Your task to perform on an android device: Look up the best rated book on Goodreads Image 0: 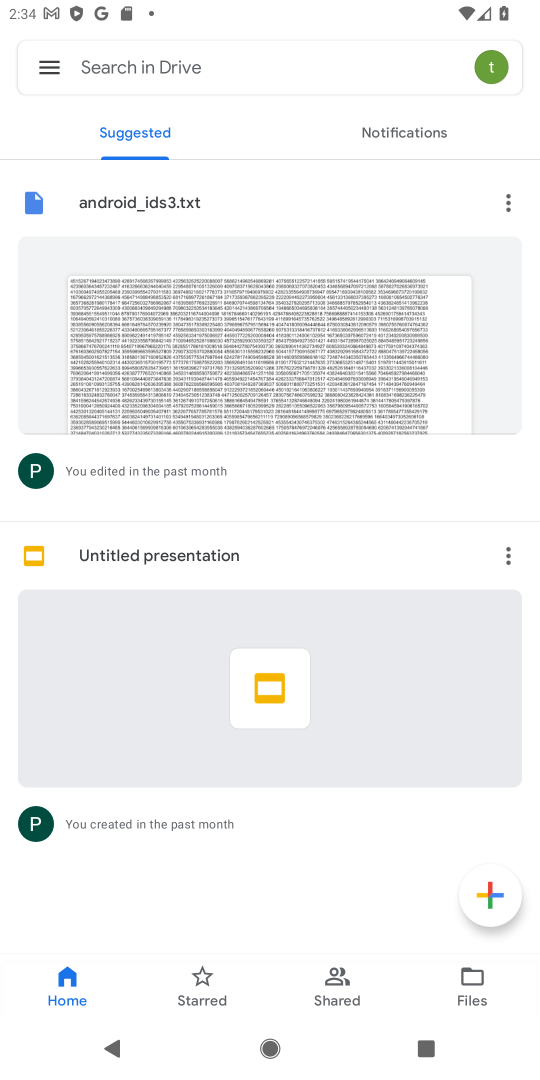
Step 0: press home button
Your task to perform on an android device: Look up the best rated book on Goodreads Image 1: 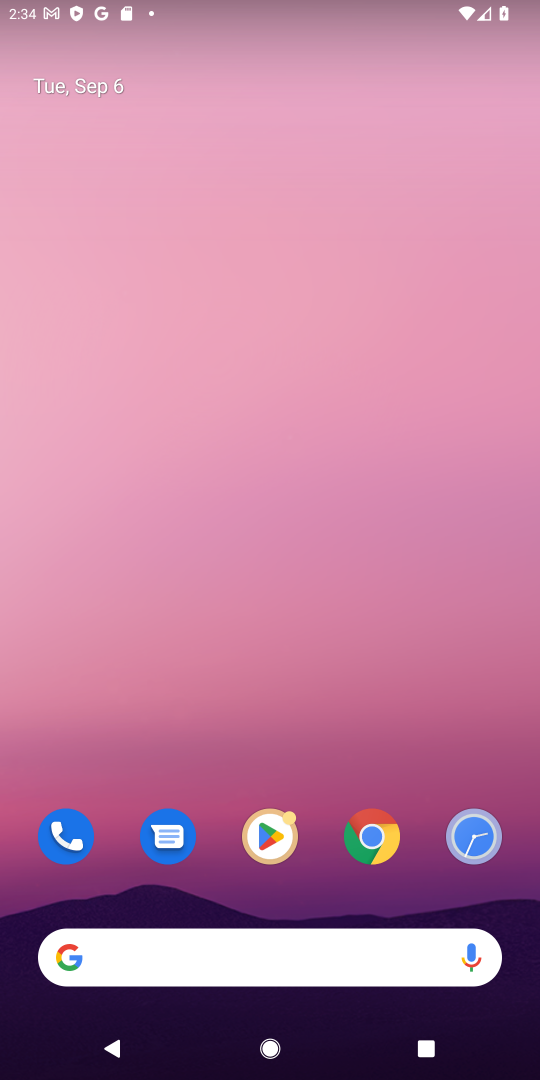
Step 1: click (208, 960)
Your task to perform on an android device: Look up the best rated book on Goodreads Image 2: 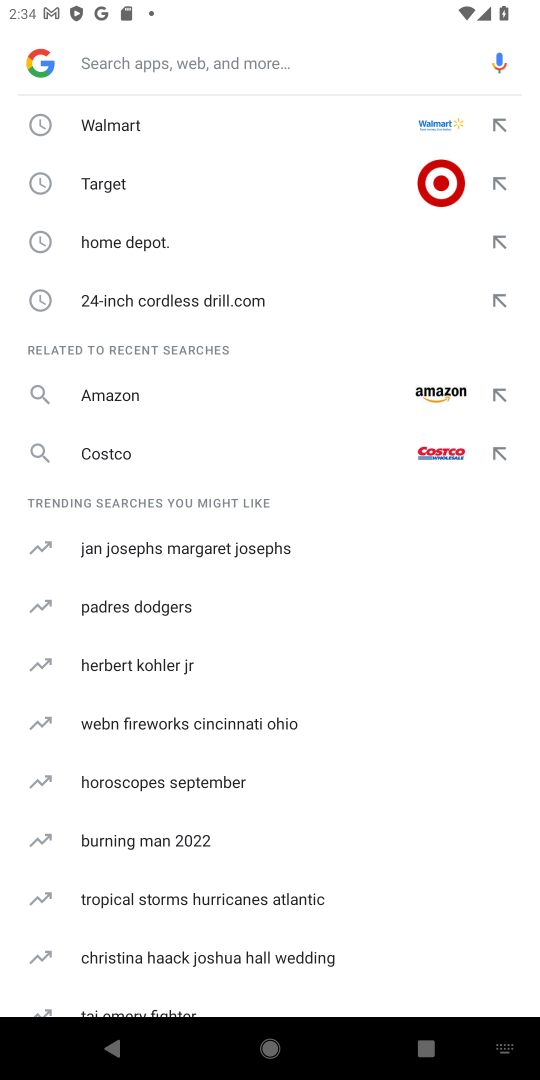
Step 2: type "goodreads"
Your task to perform on an android device: Look up the best rated book on Goodreads Image 3: 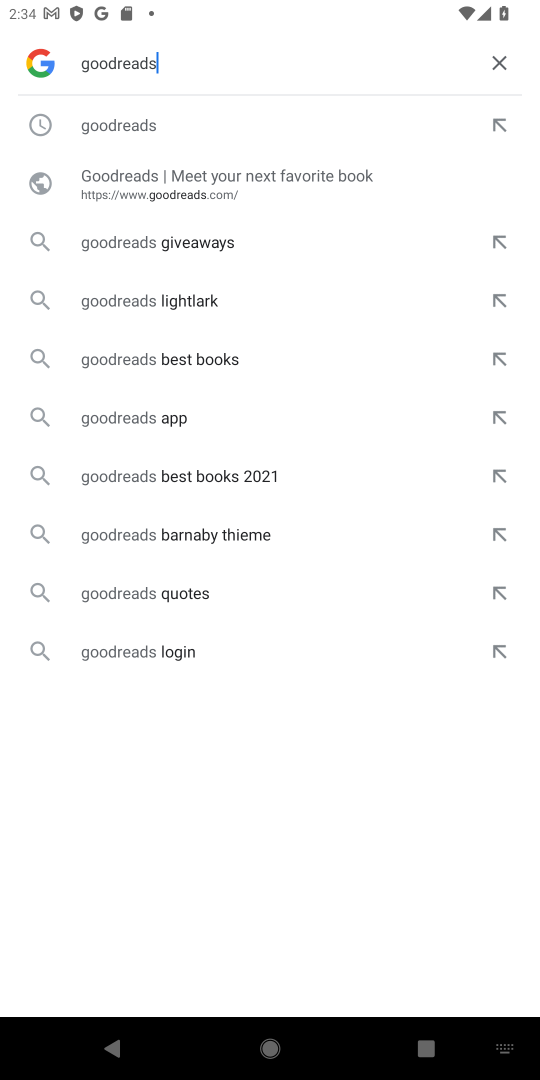
Step 3: click (126, 129)
Your task to perform on an android device: Look up the best rated book on Goodreads Image 4: 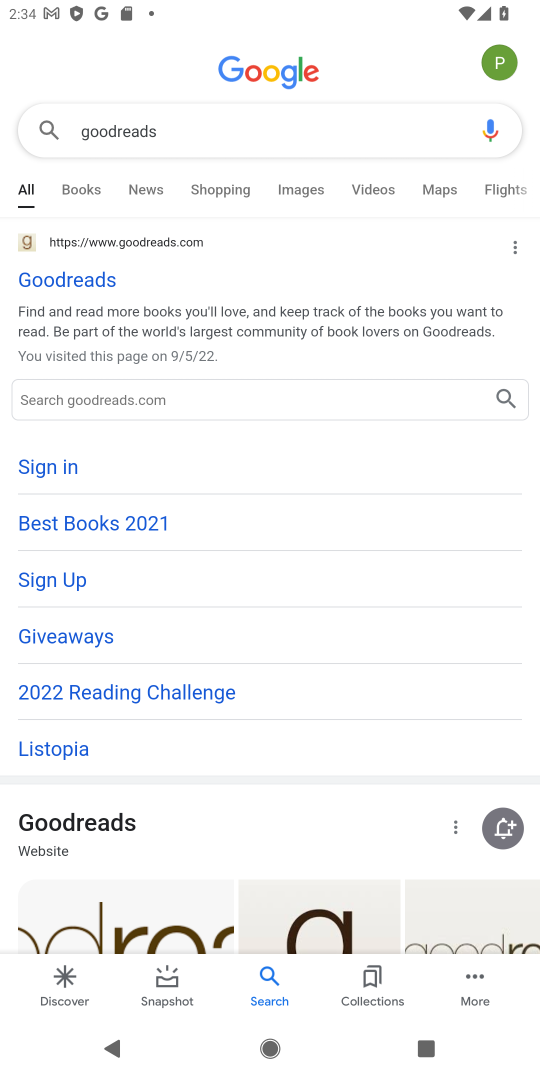
Step 4: click (69, 273)
Your task to perform on an android device: Look up the best rated book on Goodreads Image 5: 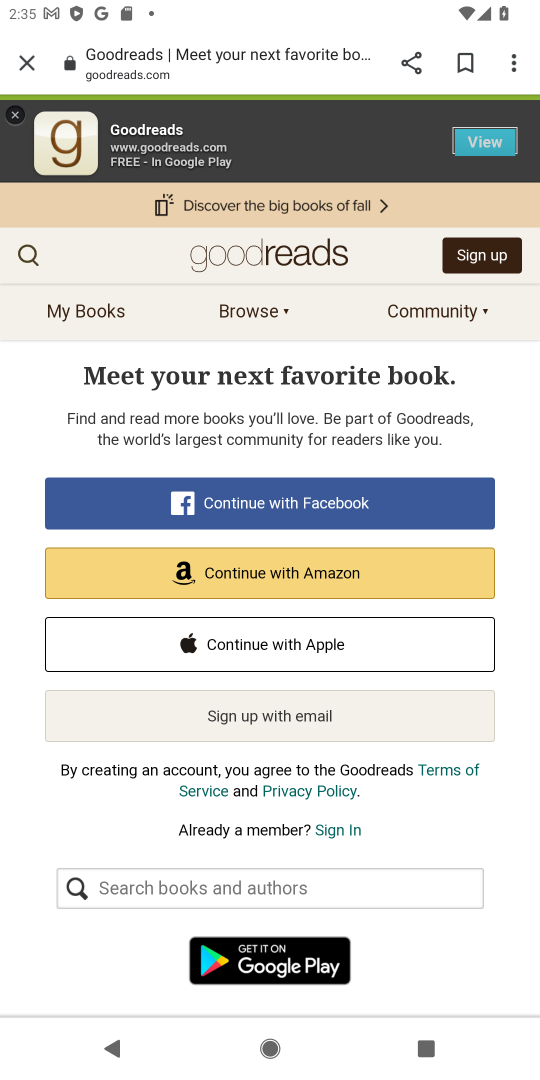
Step 5: click (29, 252)
Your task to perform on an android device: Look up the best rated book on Goodreads Image 6: 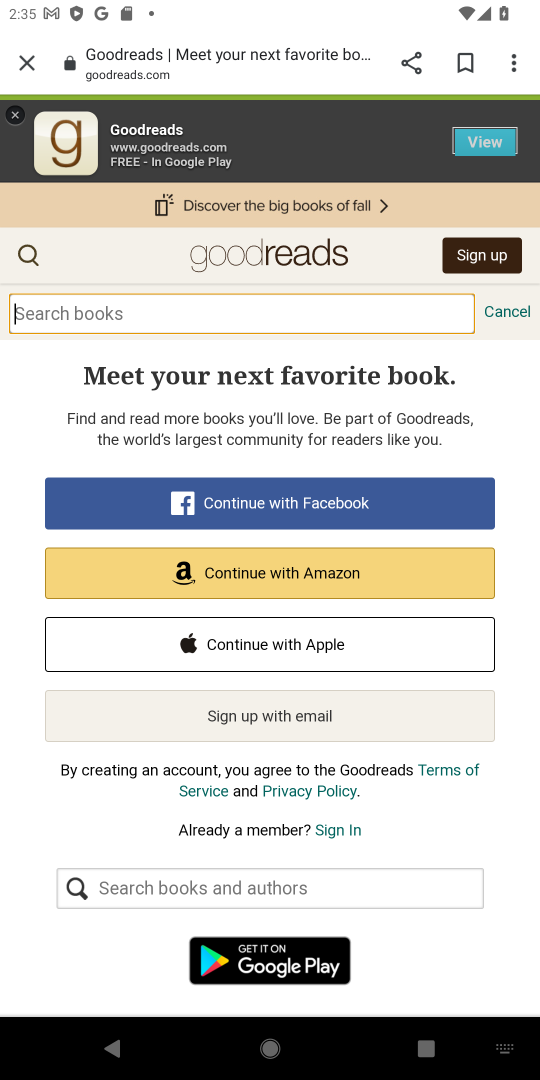
Step 6: type "best rated book"
Your task to perform on an android device: Look up the best rated book on Goodreads Image 7: 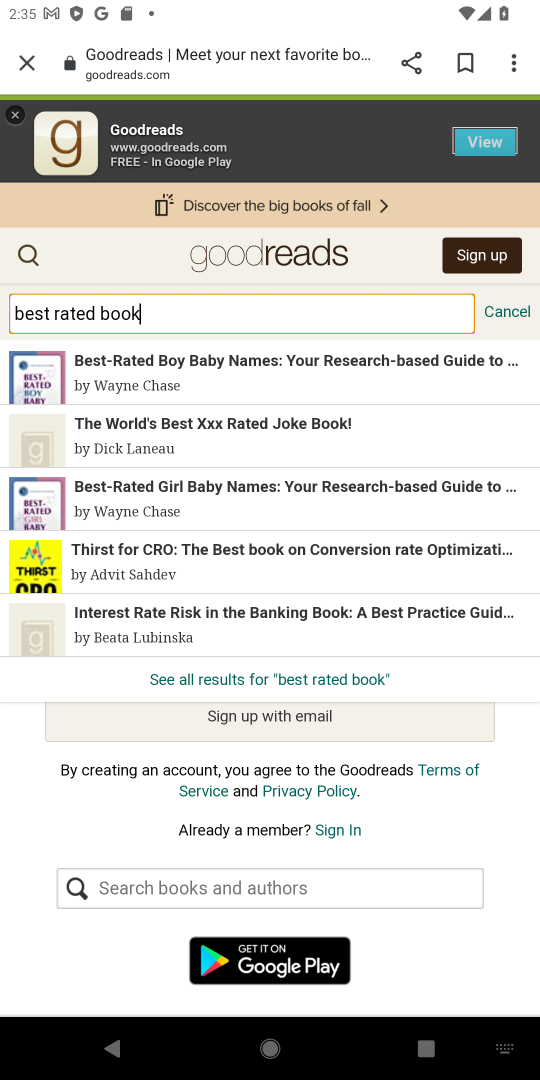
Step 7: click (247, 677)
Your task to perform on an android device: Look up the best rated book on Goodreads Image 8: 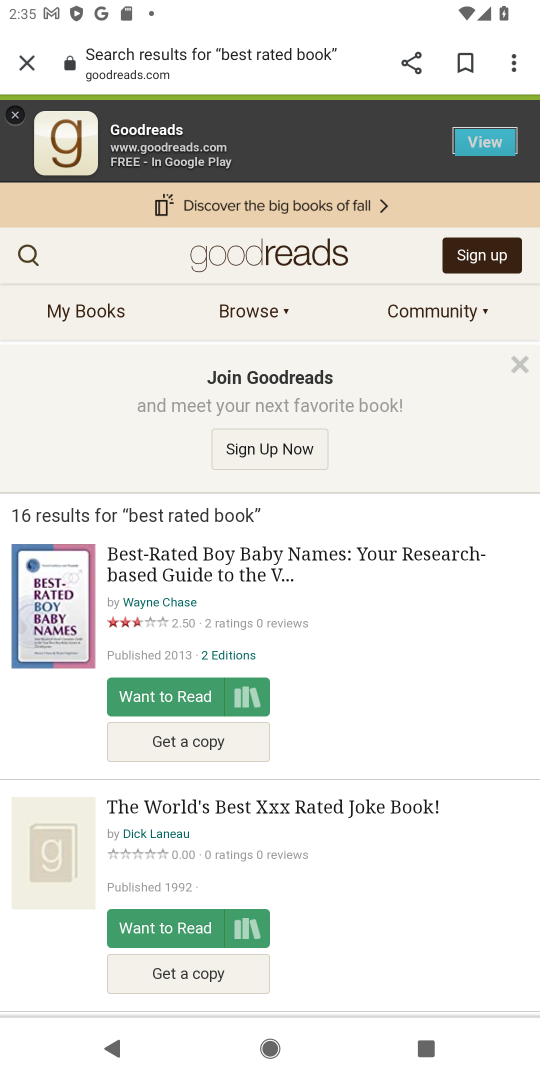
Step 8: task complete